Your task to perform on an android device: Open display settings Image 0: 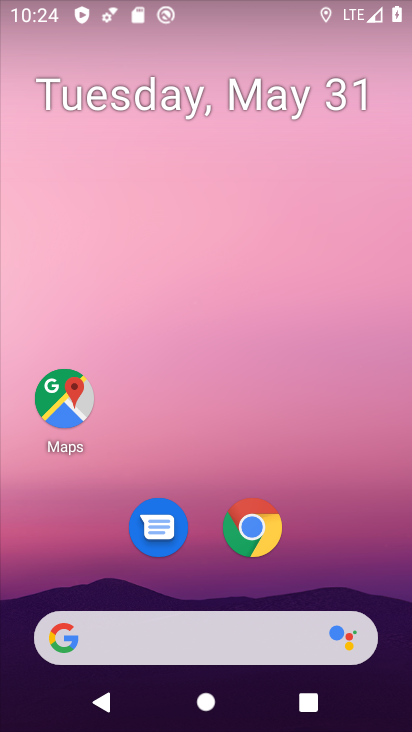
Step 0: drag from (394, 569) to (208, 75)
Your task to perform on an android device: Open display settings Image 1: 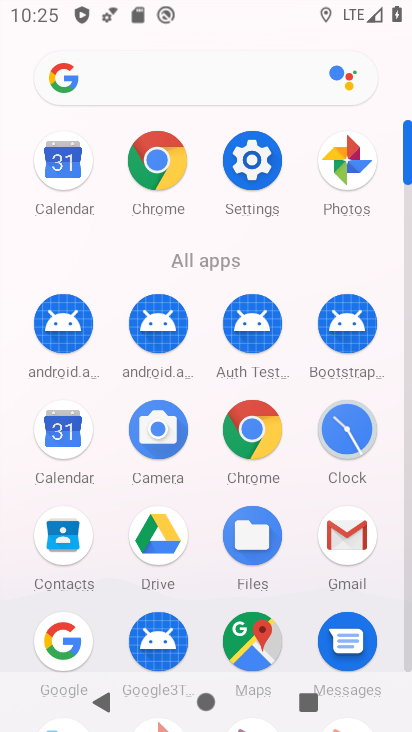
Step 1: click (271, 160)
Your task to perform on an android device: Open display settings Image 2: 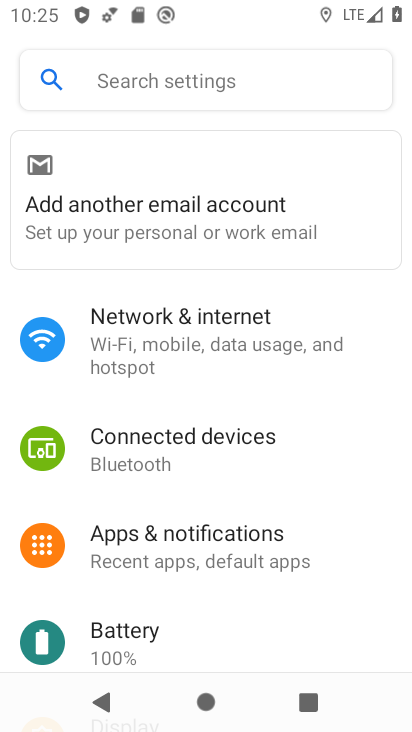
Step 2: drag from (247, 594) to (162, 256)
Your task to perform on an android device: Open display settings Image 3: 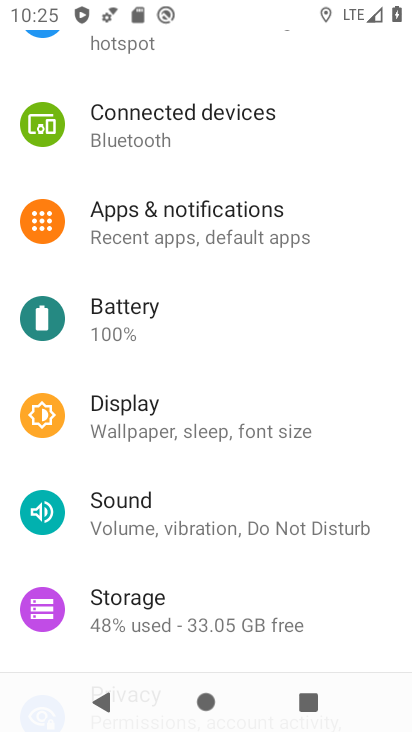
Step 3: click (186, 406)
Your task to perform on an android device: Open display settings Image 4: 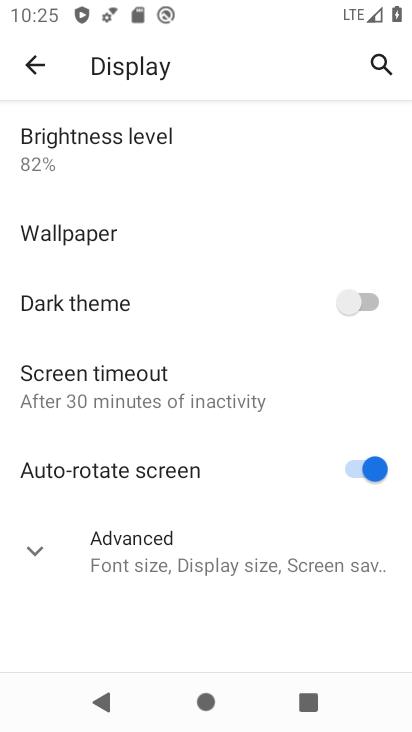
Step 4: task complete